Your task to perform on an android device: allow cookies in the chrome app Image 0: 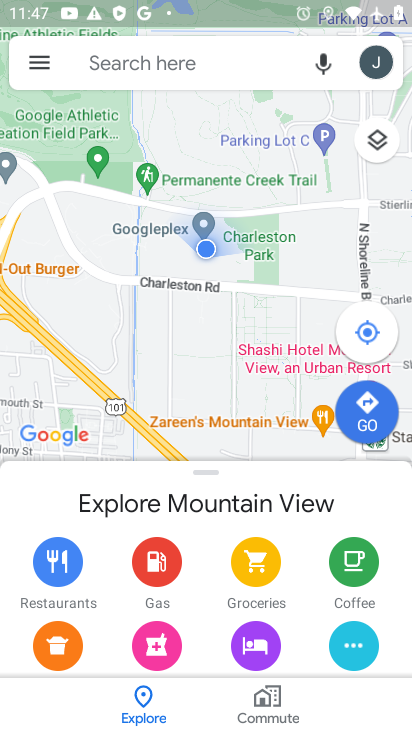
Step 0: click (401, 644)
Your task to perform on an android device: allow cookies in the chrome app Image 1: 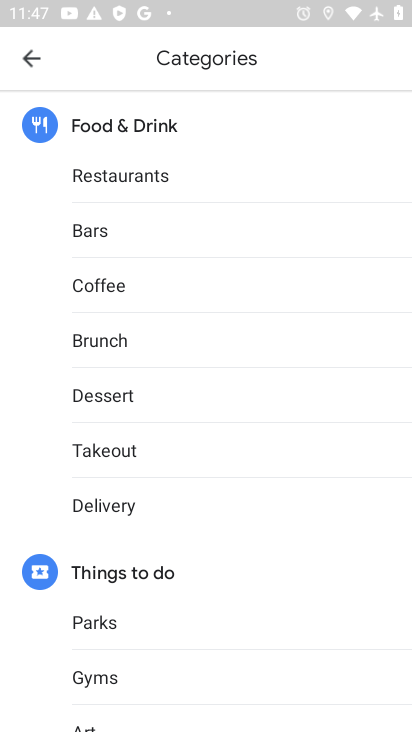
Step 1: press home button
Your task to perform on an android device: allow cookies in the chrome app Image 2: 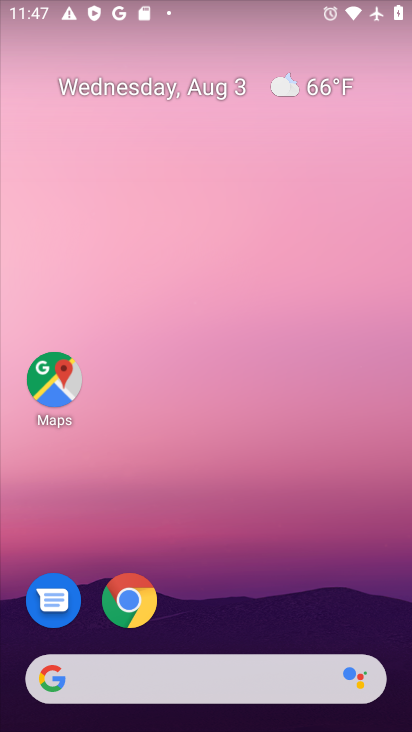
Step 2: click (144, 617)
Your task to perform on an android device: allow cookies in the chrome app Image 3: 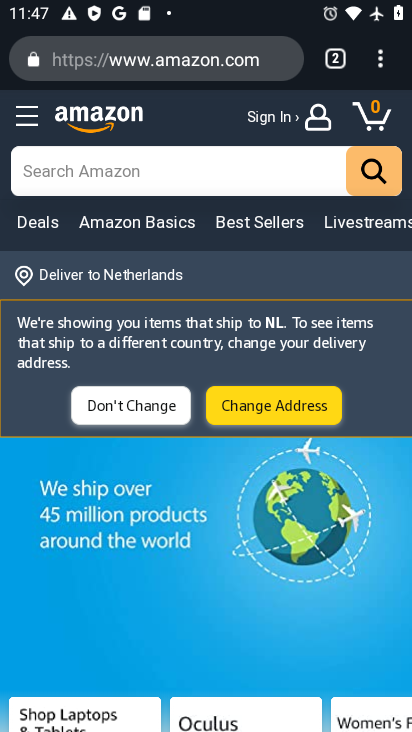
Step 3: click (379, 65)
Your task to perform on an android device: allow cookies in the chrome app Image 4: 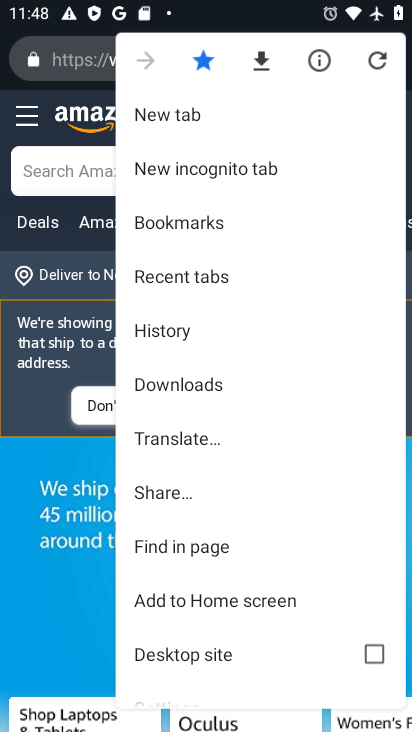
Step 4: drag from (198, 674) to (328, 159)
Your task to perform on an android device: allow cookies in the chrome app Image 5: 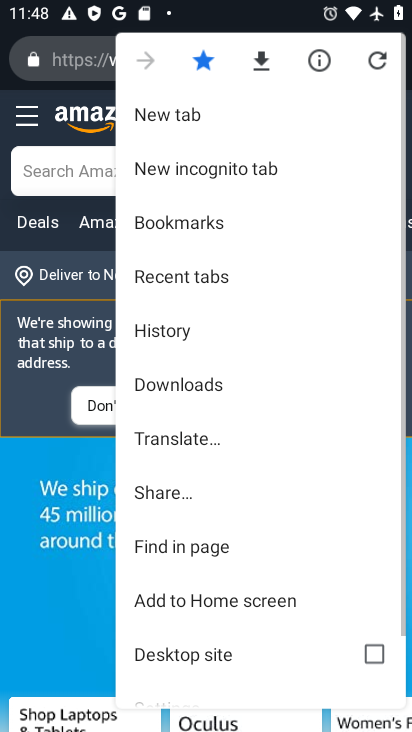
Step 5: drag from (183, 638) to (174, 317)
Your task to perform on an android device: allow cookies in the chrome app Image 6: 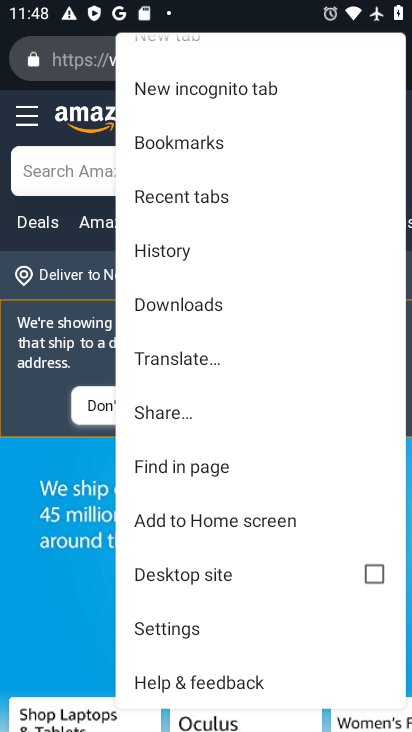
Step 6: click (154, 612)
Your task to perform on an android device: allow cookies in the chrome app Image 7: 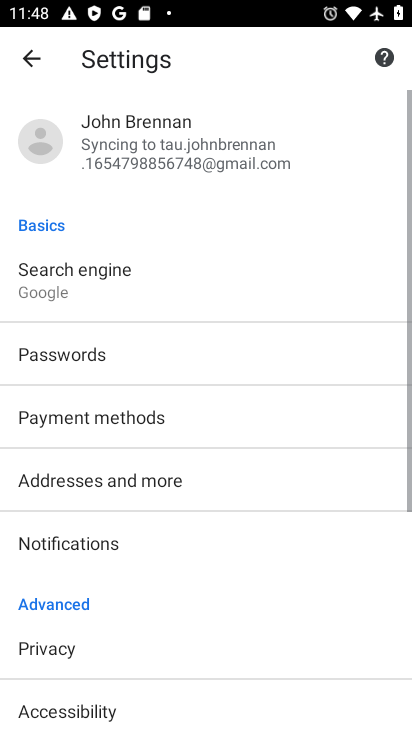
Step 7: click (154, 612)
Your task to perform on an android device: allow cookies in the chrome app Image 8: 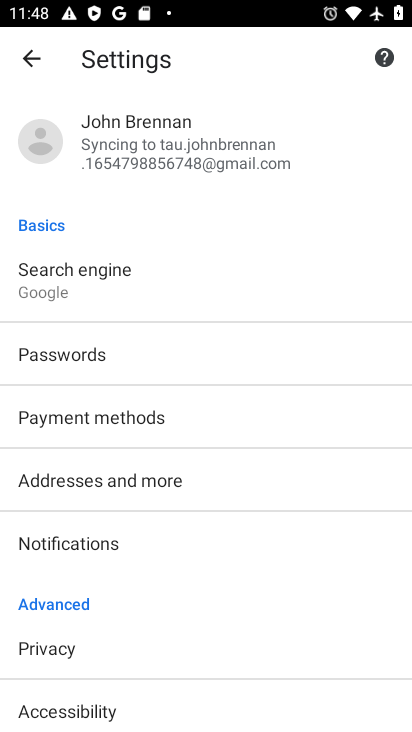
Step 8: drag from (154, 570) to (223, 13)
Your task to perform on an android device: allow cookies in the chrome app Image 9: 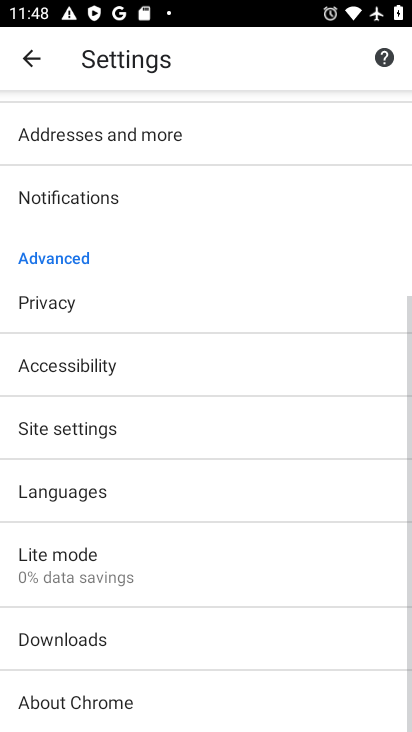
Step 9: click (131, 410)
Your task to perform on an android device: allow cookies in the chrome app Image 10: 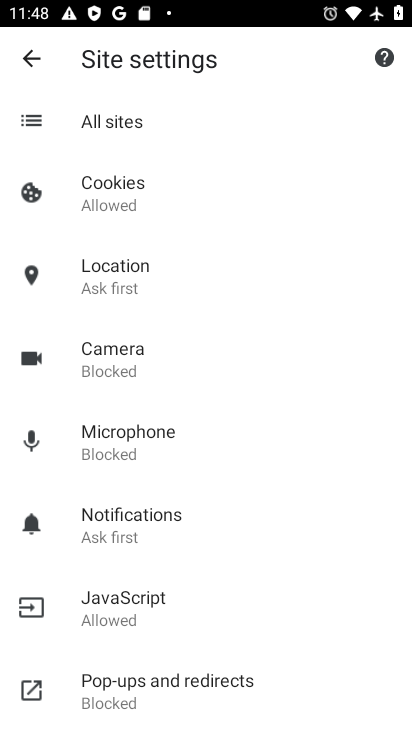
Step 10: click (91, 182)
Your task to perform on an android device: allow cookies in the chrome app Image 11: 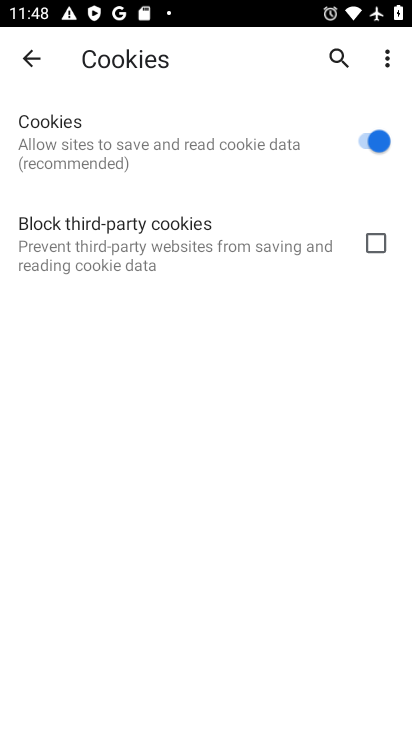
Step 11: task complete